Your task to perform on an android device: Open maps Image 0: 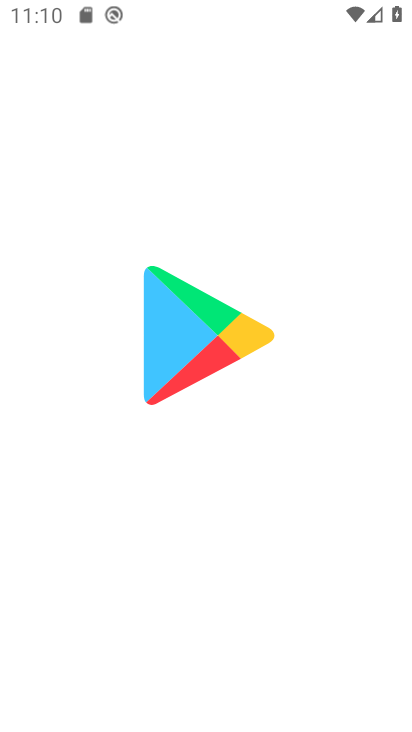
Step 0: press home button
Your task to perform on an android device: Open maps Image 1: 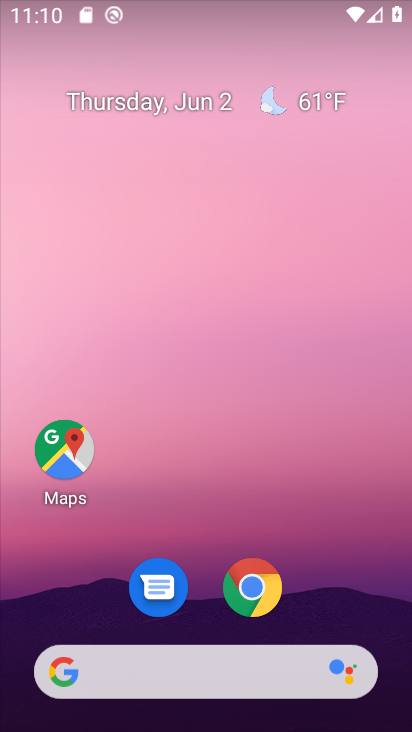
Step 1: drag from (203, 599) to (341, 0)
Your task to perform on an android device: Open maps Image 2: 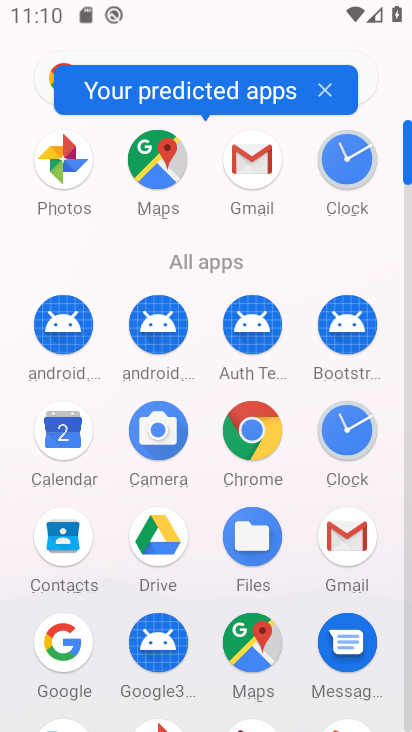
Step 2: click (253, 646)
Your task to perform on an android device: Open maps Image 3: 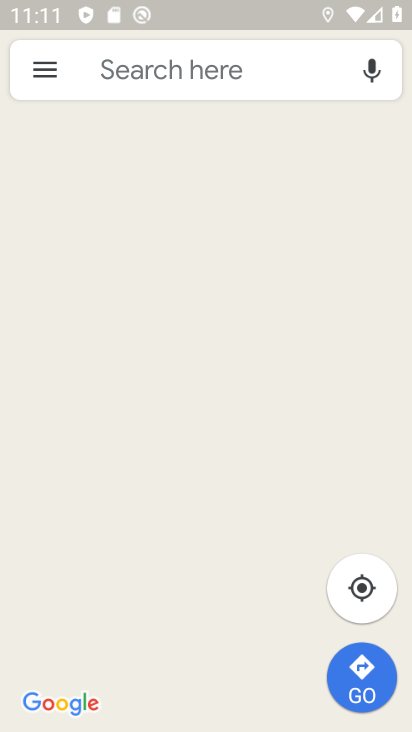
Step 3: task complete